Your task to perform on an android device: When is my next appointment? Image 0: 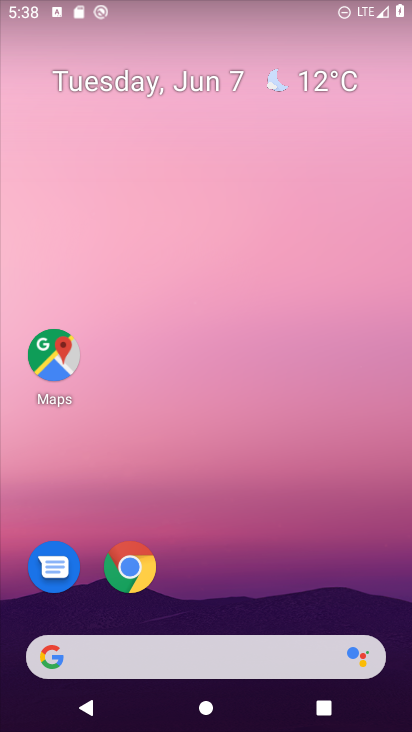
Step 0: drag from (299, 625) to (411, 6)
Your task to perform on an android device: When is my next appointment? Image 1: 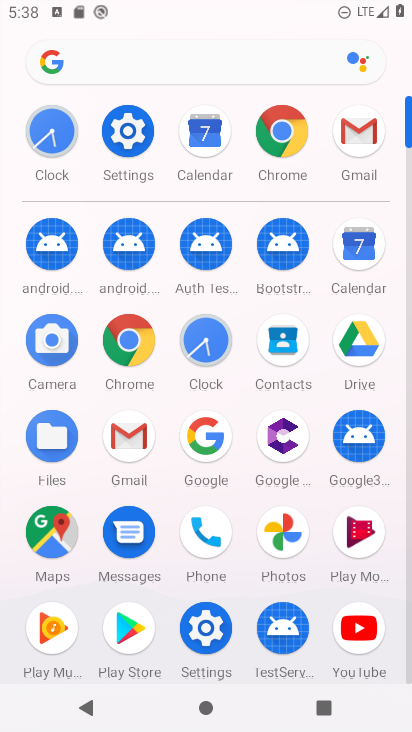
Step 1: click (366, 251)
Your task to perform on an android device: When is my next appointment? Image 2: 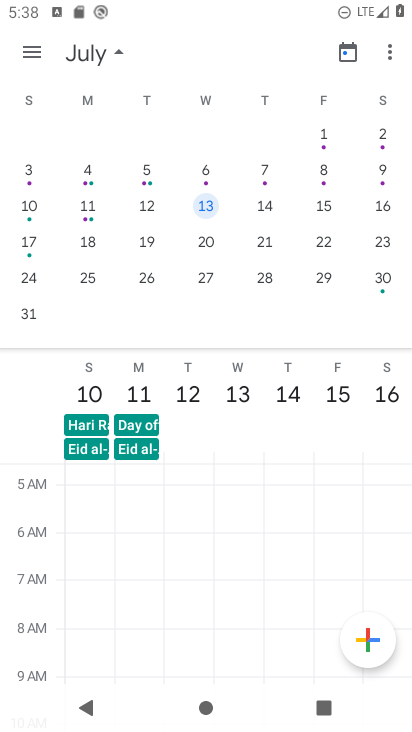
Step 2: drag from (50, 215) to (345, 247)
Your task to perform on an android device: When is my next appointment? Image 3: 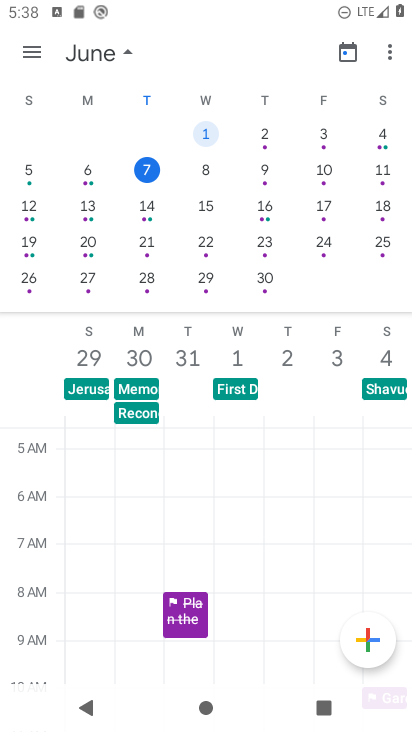
Step 3: click (197, 167)
Your task to perform on an android device: When is my next appointment? Image 4: 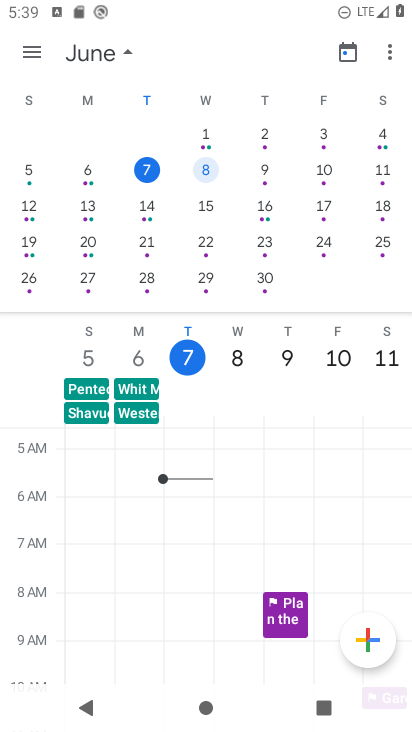
Step 4: task complete